Your task to perform on an android device: toggle improve location accuracy Image 0: 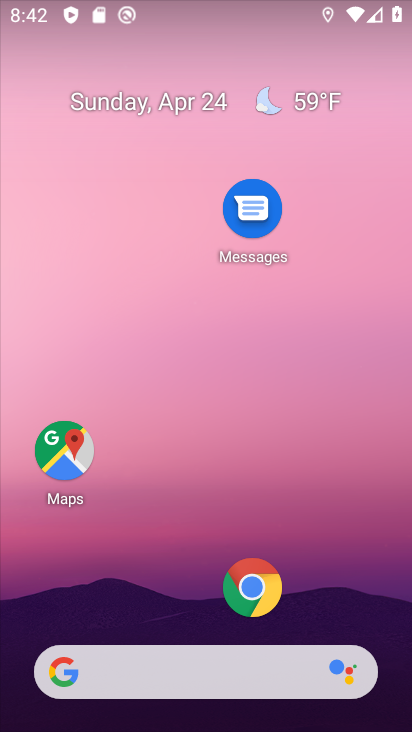
Step 0: drag from (172, 617) to (179, 124)
Your task to perform on an android device: toggle improve location accuracy Image 1: 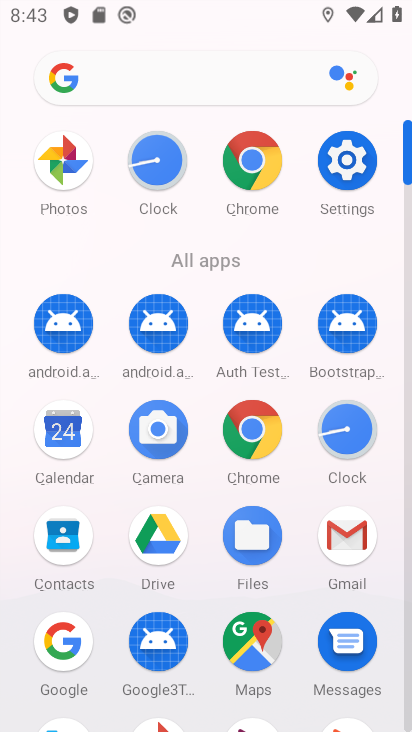
Step 1: click (358, 170)
Your task to perform on an android device: toggle improve location accuracy Image 2: 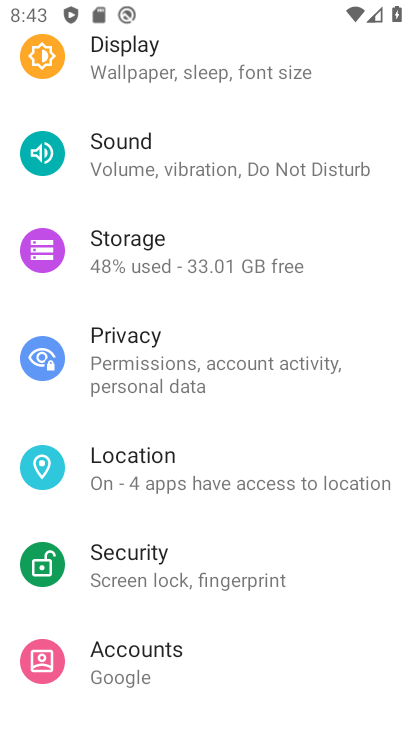
Step 2: click (182, 488)
Your task to perform on an android device: toggle improve location accuracy Image 3: 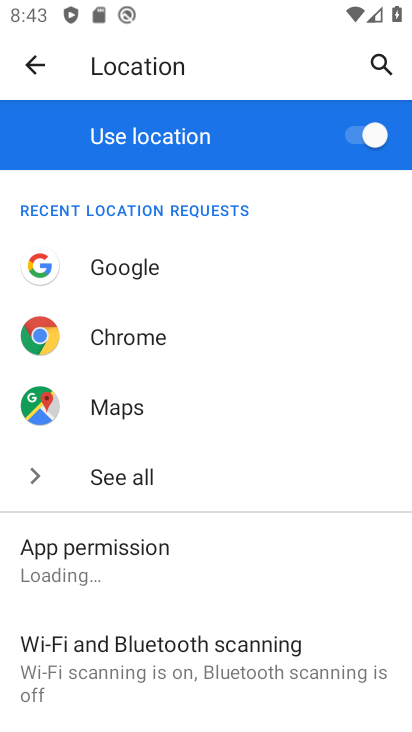
Step 3: drag from (154, 610) to (209, 240)
Your task to perform on an android device: toggle improve location accuracy Image 4: 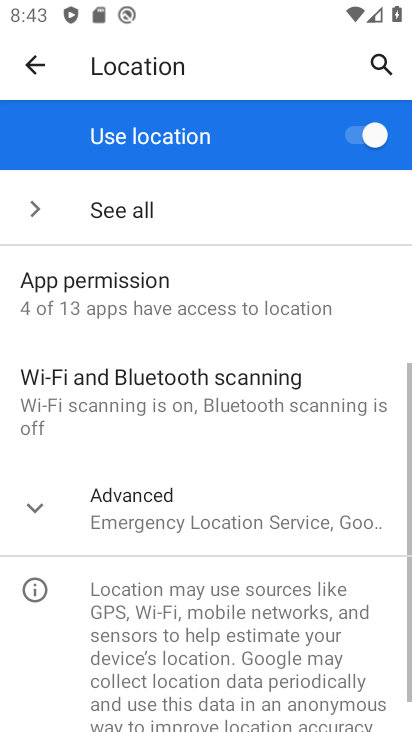
Step 4: click (183, 519)
Your task to perform on an android device: toggle improve location accuracy Image 5: 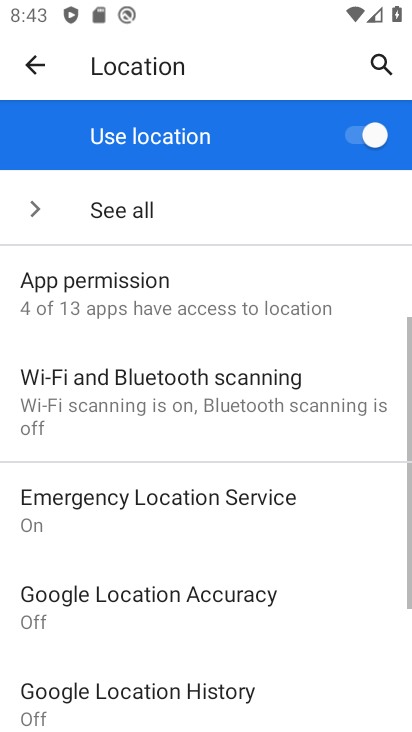
Step 5: drag from (175, 590) to (177, 324)
Your task to perform on an android device: toggle improve location accuracy Image 6: 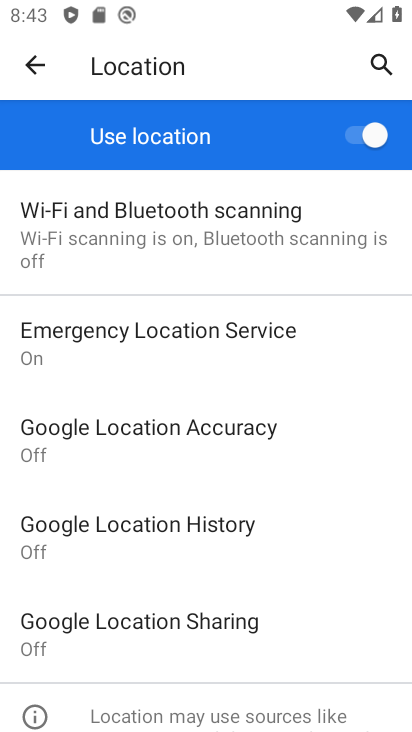
Step 6: click (114, 439)
Your task to perform on an android device: toggle improve location accuracy Image 7: 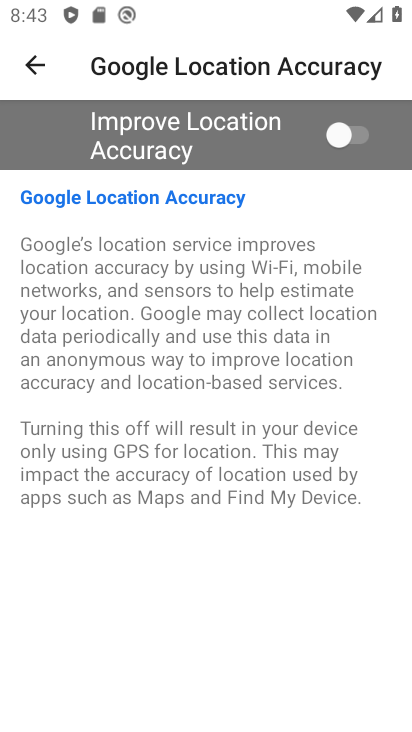
Step 7: click (342, 145)
Your task to perform on an android device: toggle improve location accuracy Image 8: 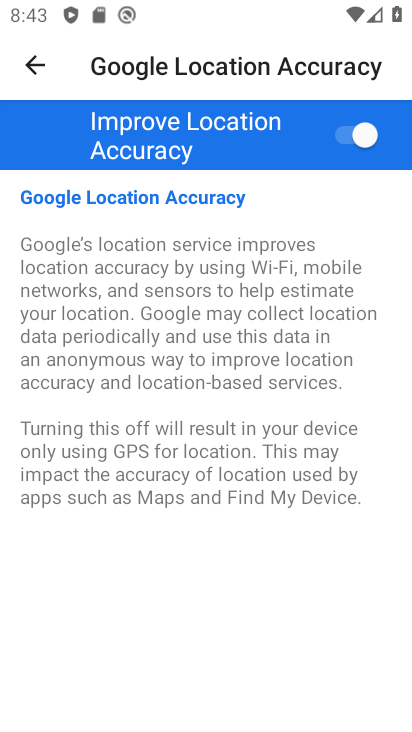
Step 8: task complete